Your task to perform on an android device: Show me recent news Image 0: 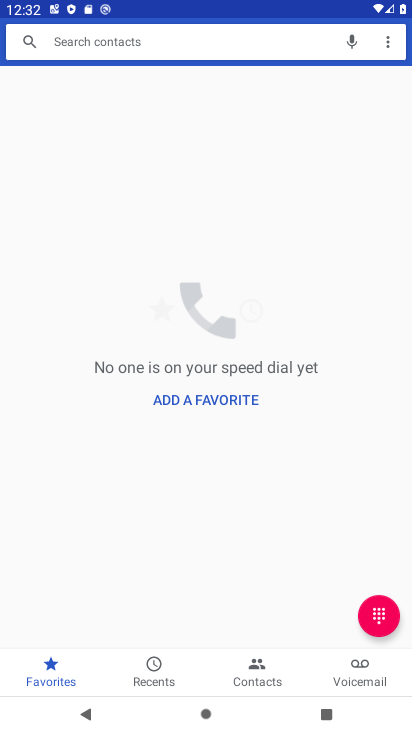
Step 0: press home button
Your task to perform on an android device: Show me recent news Image 1: 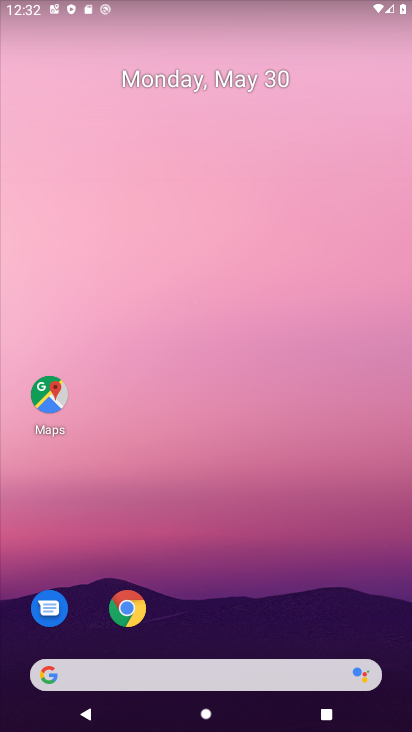
Step 1: click (200, 668)
Your task to perform on an android device: Show me recent news Image 2: 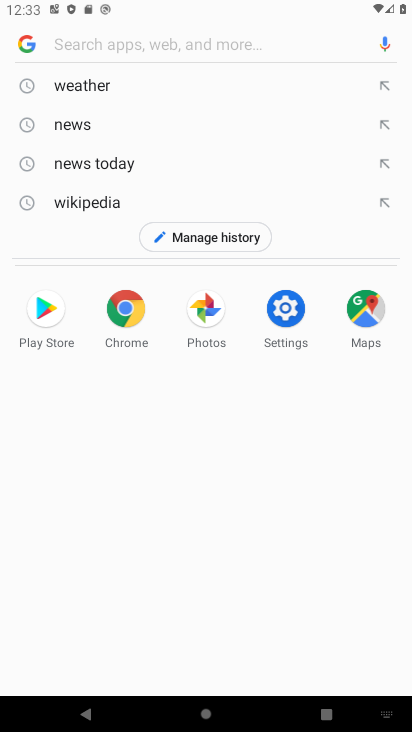
Step 2: type "recent news"
Your task to perform on an android device: Show me recent news Image 3: 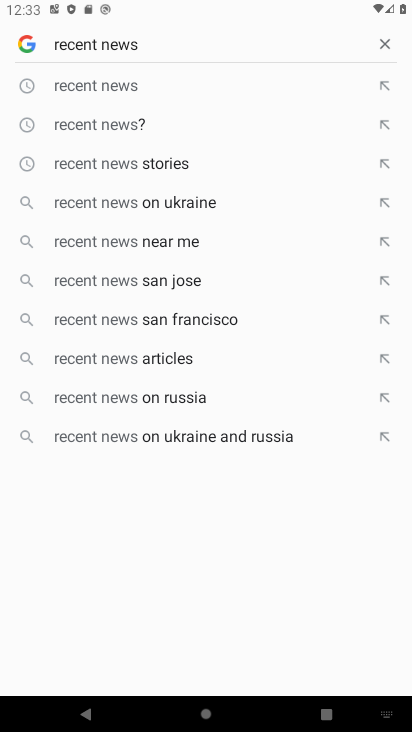
Step 3: click (123, 80)
Your task to perform on an android device: Show me recent news Image 4: 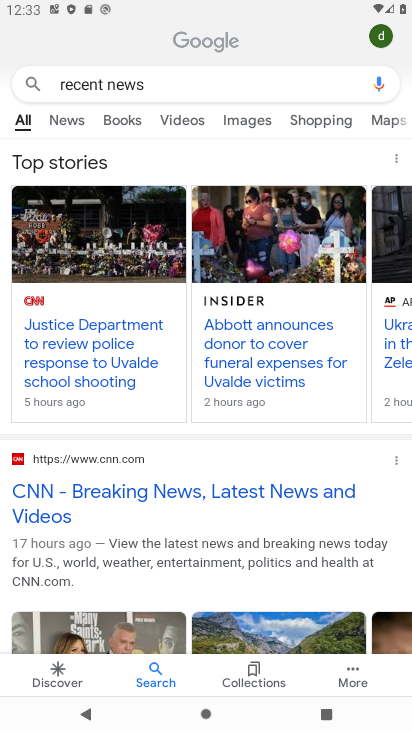
Step 4: click (73, 120)
Your task to perform on an android device: Show me recent news Image 5: 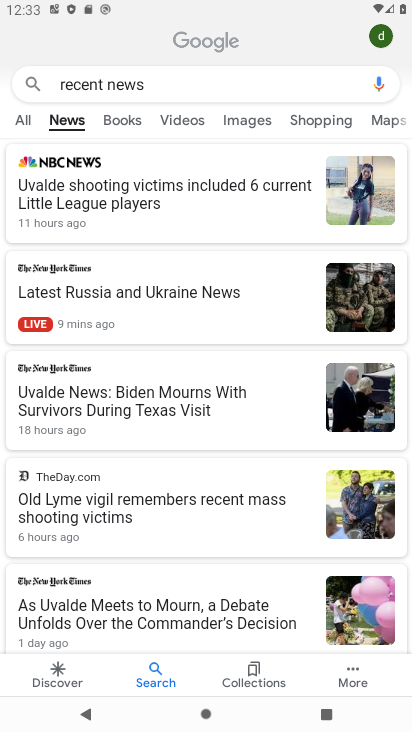
Step 5: task complete